Your task to perform on an android device: toggle translation in the chrome app Image 0: 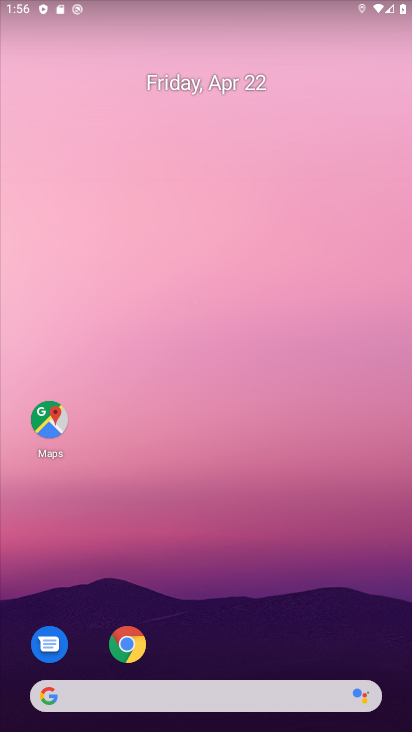
Step 0: drag from (301, 593) to (273, 191)
Your task to perform on an android device: toggle translation in the chrome app Image 1: 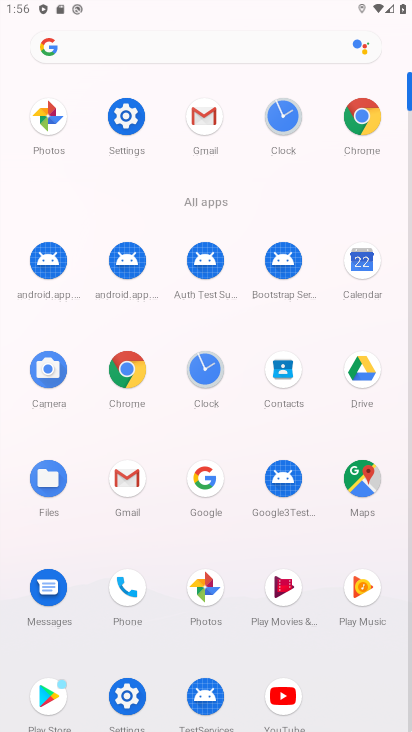
Step 1: click (347, 142)
Your task to perform on an android device: toggle translation in the chrome app Image 2: 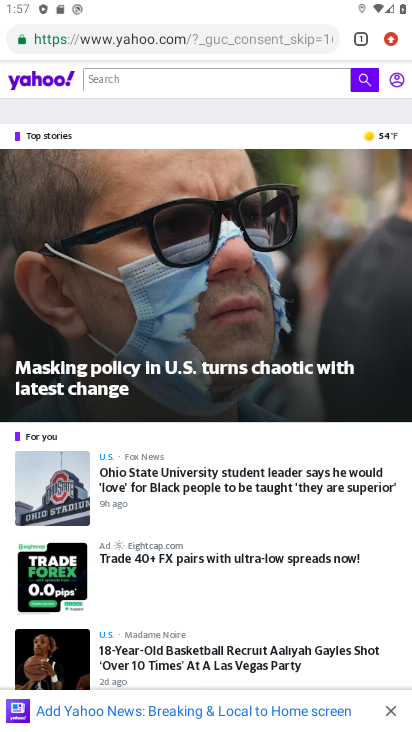
Step 2: click (389, 39)
Your task to perform on an android device: toggle translation in the chrome app Image 3: 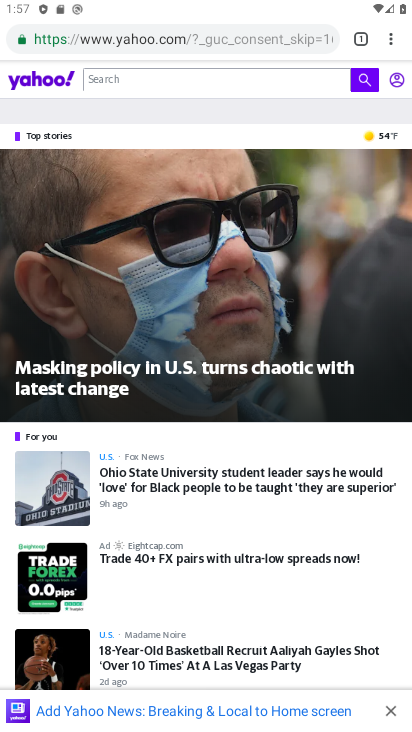
Step 3: click (394, 38)
Your task to perform on an android device: toggle translation in the chrome app Image 4: 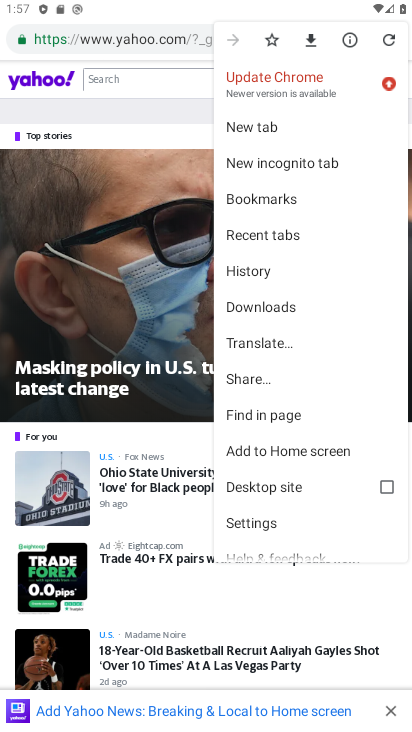
Step 4: click (385, 83)
Your task to perform on an android device: toggle translation in the chrome app Image 5: 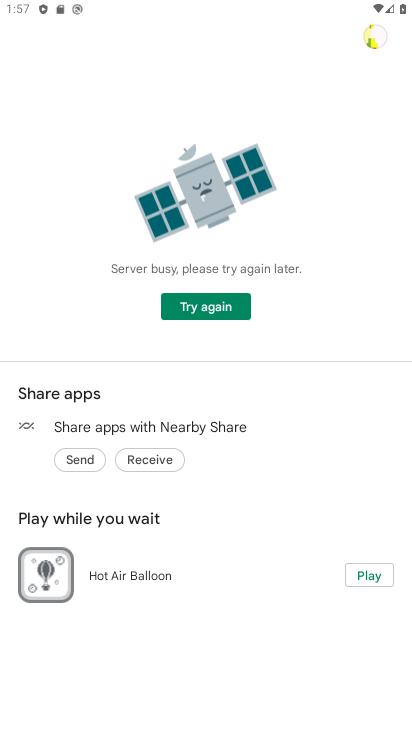
Step 5: click (199, 307)
Your task to perform on an android device: toggle translation in the chrome app Image 6: 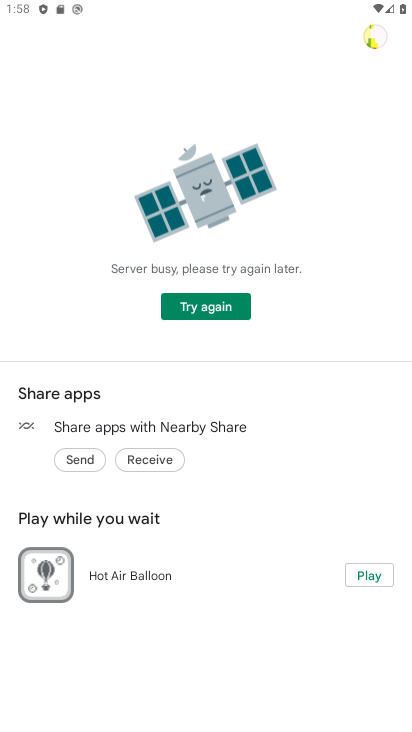
Step 6: click (228, 306)
Your task to perform on an android device: toggle translation in the chrome app Image 7: 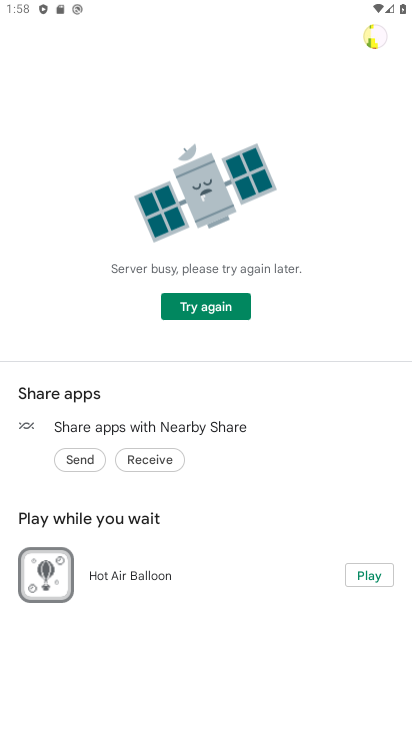
Step 7: click (232, 309)
Your task to perform on an android device: toggle translation in the chrome app Image 8: 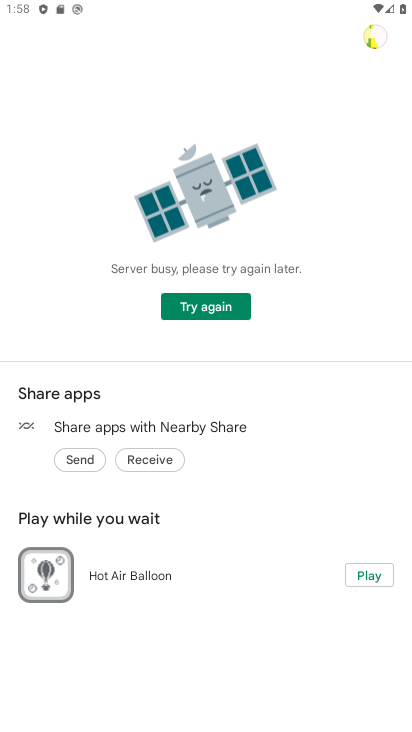
Step 8: task complete